Your task to perform on an android device: turn on improve location accuracy Image 0: 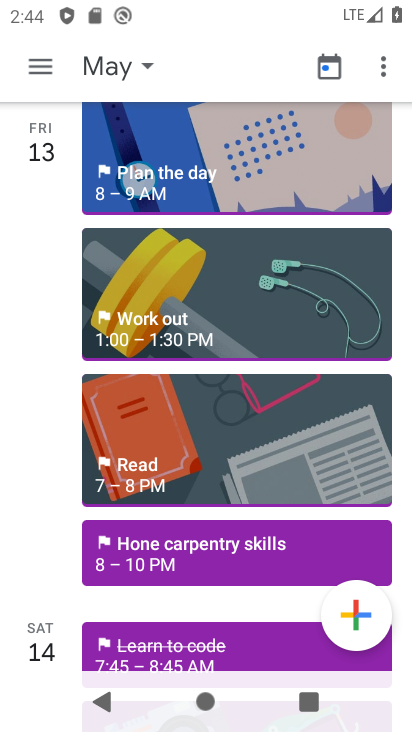
Step 0: press home button
Your task to perform on an android device: turn on improve location accuracy Image 1: 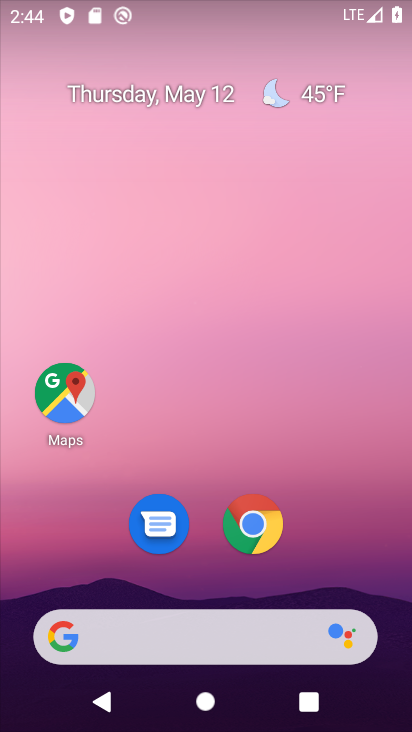
Step 1: drag from (204, 442) to (246, 30)
Your task to perform on an android device: turn on improve location accuracy Image 2: 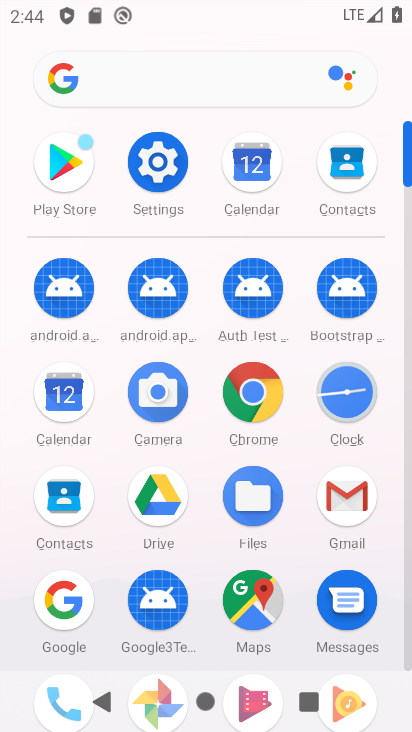
Step 2: click (169, 156)
Your task to perform on an android device: turn on improve location accuracy Image 3: 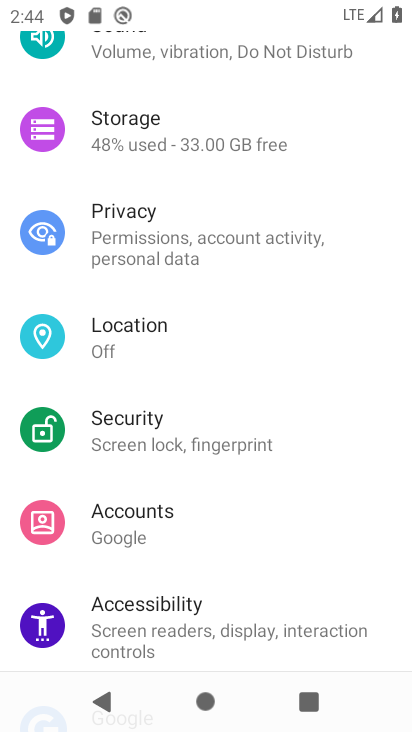
Step 3: drag from (231, 558) to (242, 377)
Your task to perform on an android device: turn on improve location accuracy Image 4: 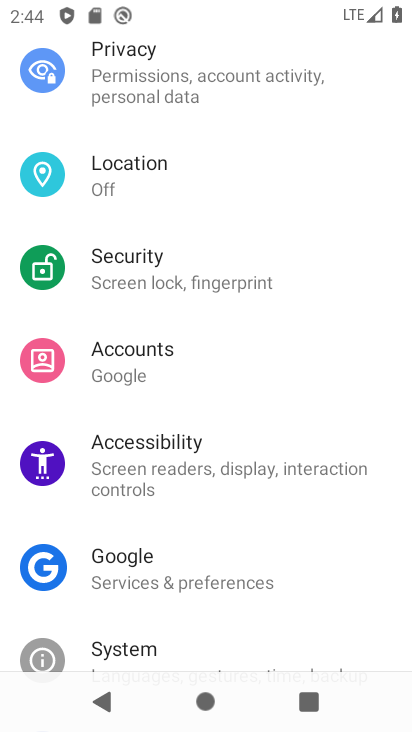
Step 4: click (211, 192)
Your task to perform on an android device: turn on improve location accuracy Image 5: 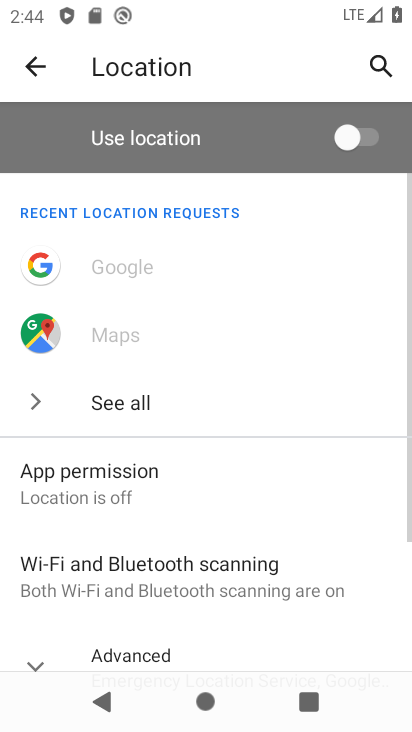
Step 5: drag from (190, 521) to (180, 331)
Your task to perform on an android device: turn on improve location accuracy Image 6: 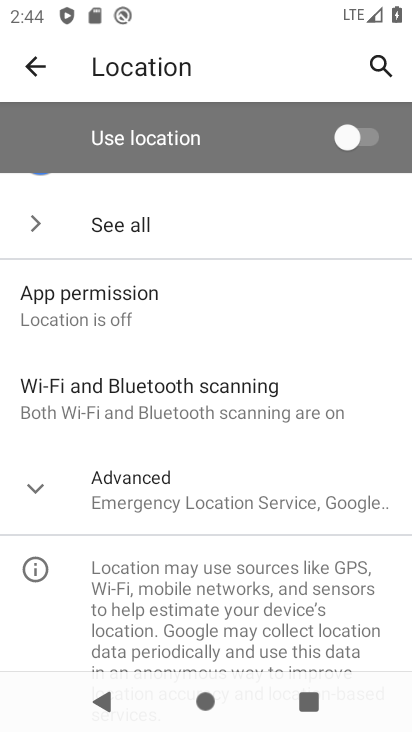
Step 6: click (40, 492)
Your task to perform on an android device: turn on improve location accuracy Image 7: 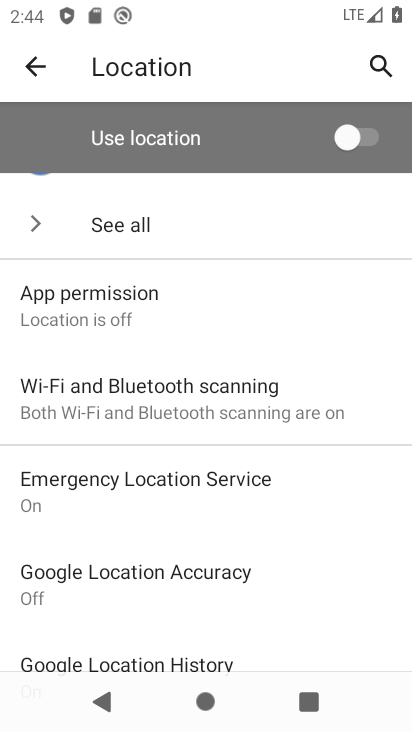
Step 7: click (201, 590)
Your task to perform on an android device: turn on improve location accuracy Image 8: 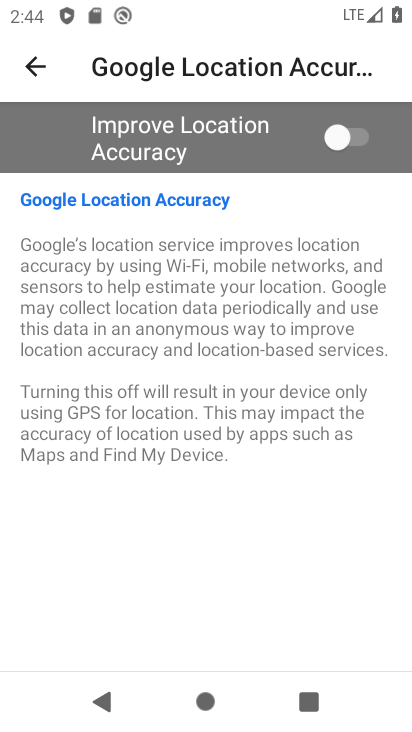
Step 8: click (352, 134)
Your task to perform on an android device: turn on improve location accuracy Image 9: 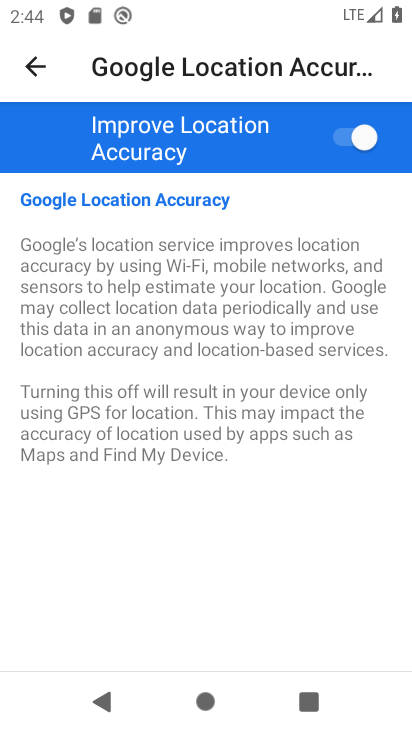
Step 9: task complete